Your task to perform on an android device: Turn on the flashlight Image 0: 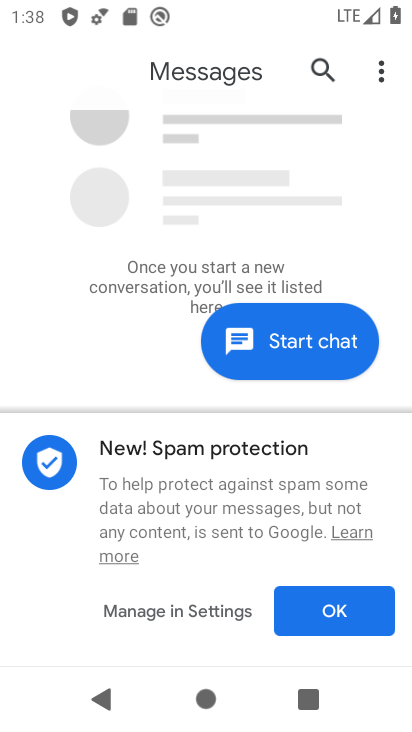
Step 0: press home button
Your task to perform on an android device: Turn on the flashlight Image 1: 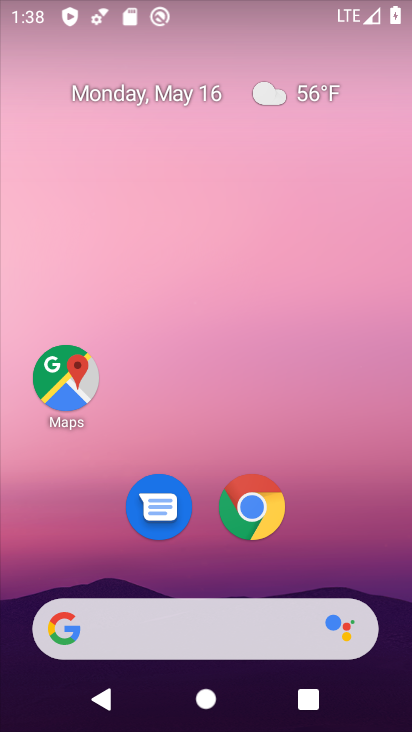
Step 1: drag from (215, 569) to (204, 201)
Your task to perform on an android device: Turn on the flashlight Image 2: 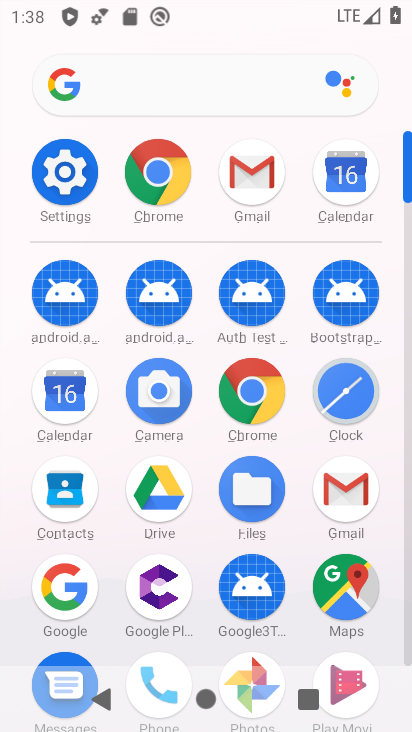
Step 2: click (70, 175)
Your task to perform on an android device: Turn on the flashlight Image 3: 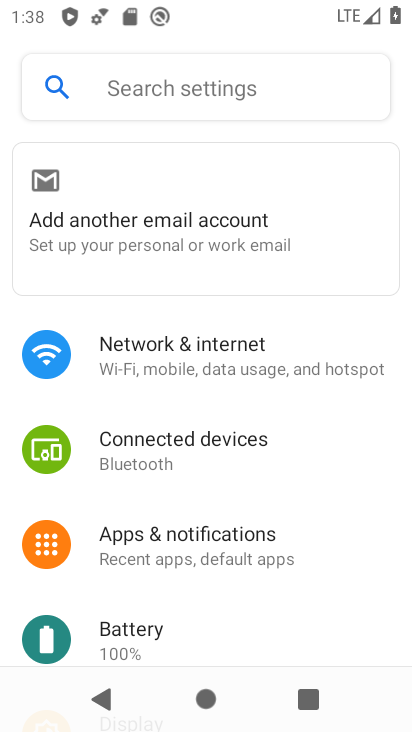
Step 3: drag from (195, 473) to (217, 290)
Your task to perform on an android device: Turn on the flashlight Image 4: 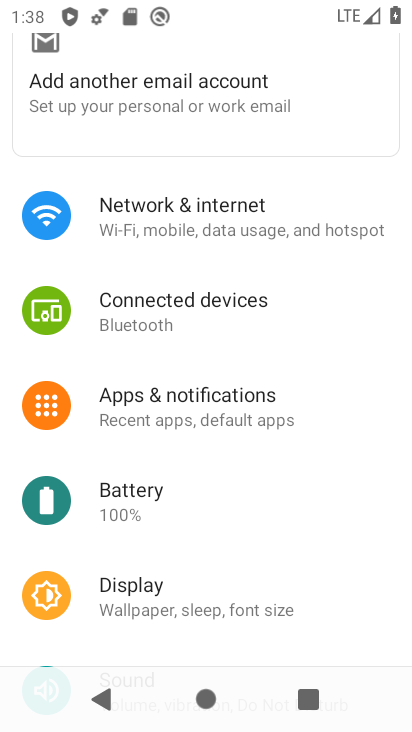
Step 4: click (203, 393)
Your task to perform on an android device: Turn on the flashlight Image 5: 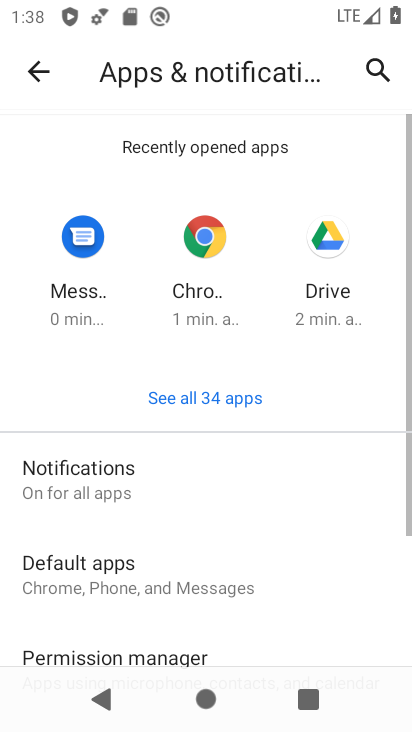
Step 5: task complete